Your task to perform on an android device: Clear the shopping cart on costco. Search for "amazon basics triple a" on costco, select the first entry, and add it to the cart. Image 0: 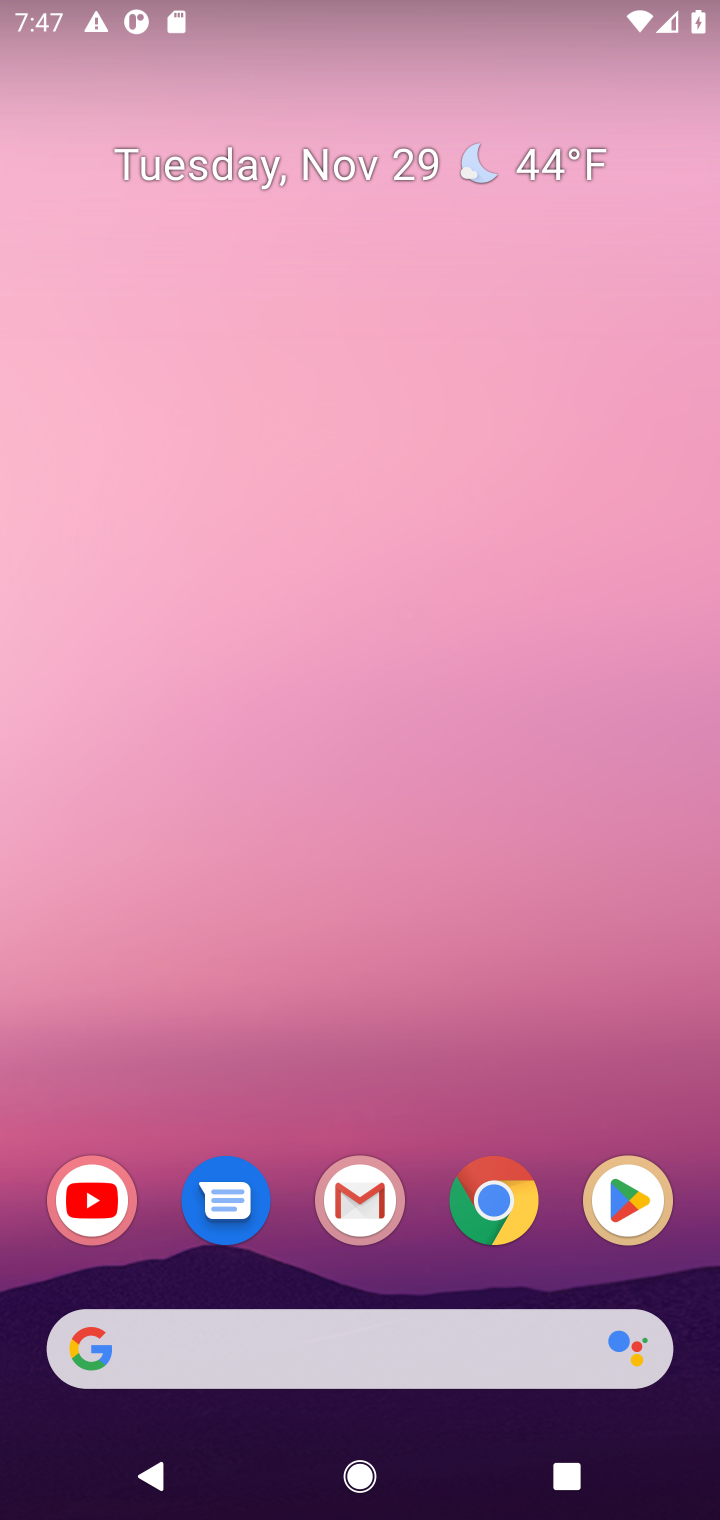
Step 0: click (240, 1362)
Your task to perform on an android device: Clear the shopping cart on costco. Search for "amazon basics triple a" on costco, select the first entry, and add it to the cart. Image 1: 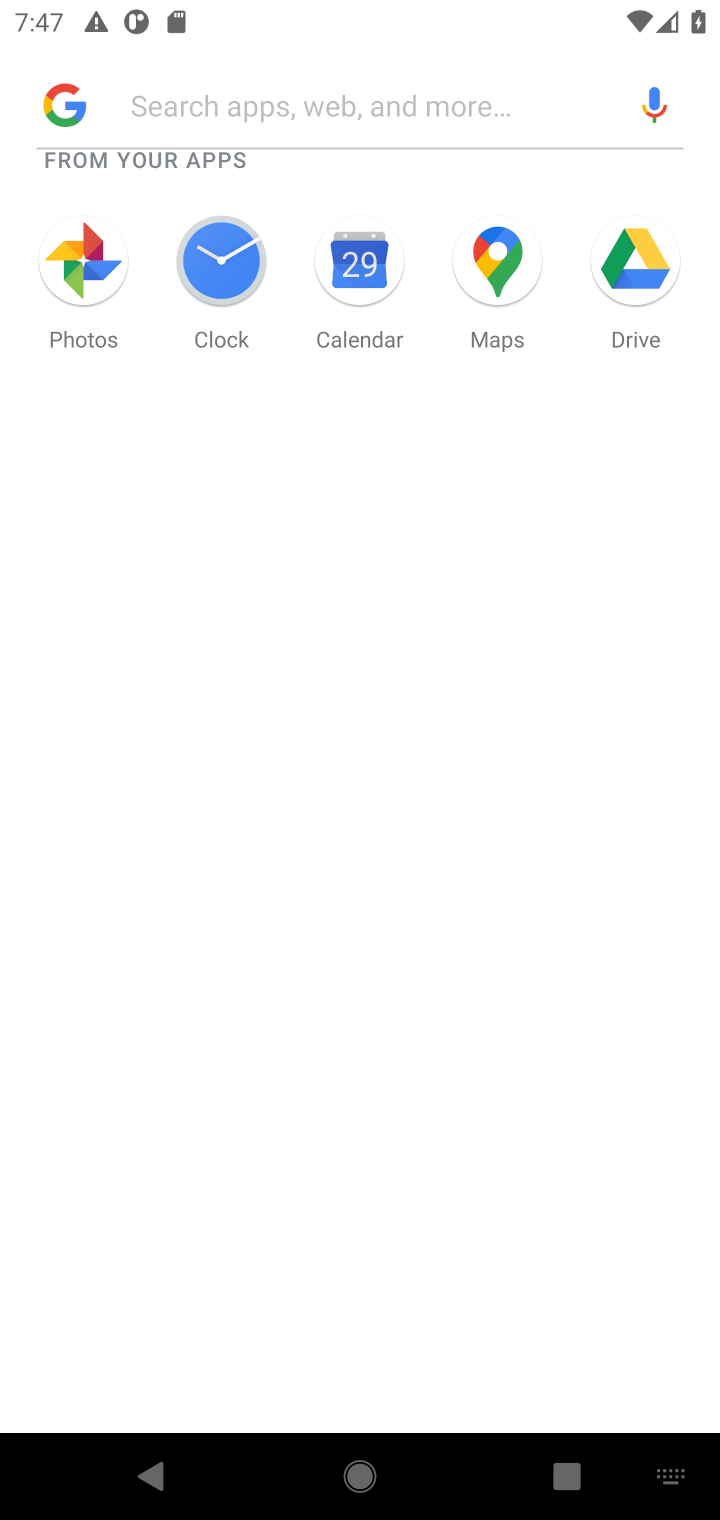
Step 1: press home button
Your task to perform on an android device: Clear the shopping cart on costco. Search for "amazon basics triple a" on costco, select the first entry, and add it to the cart. Image 2: 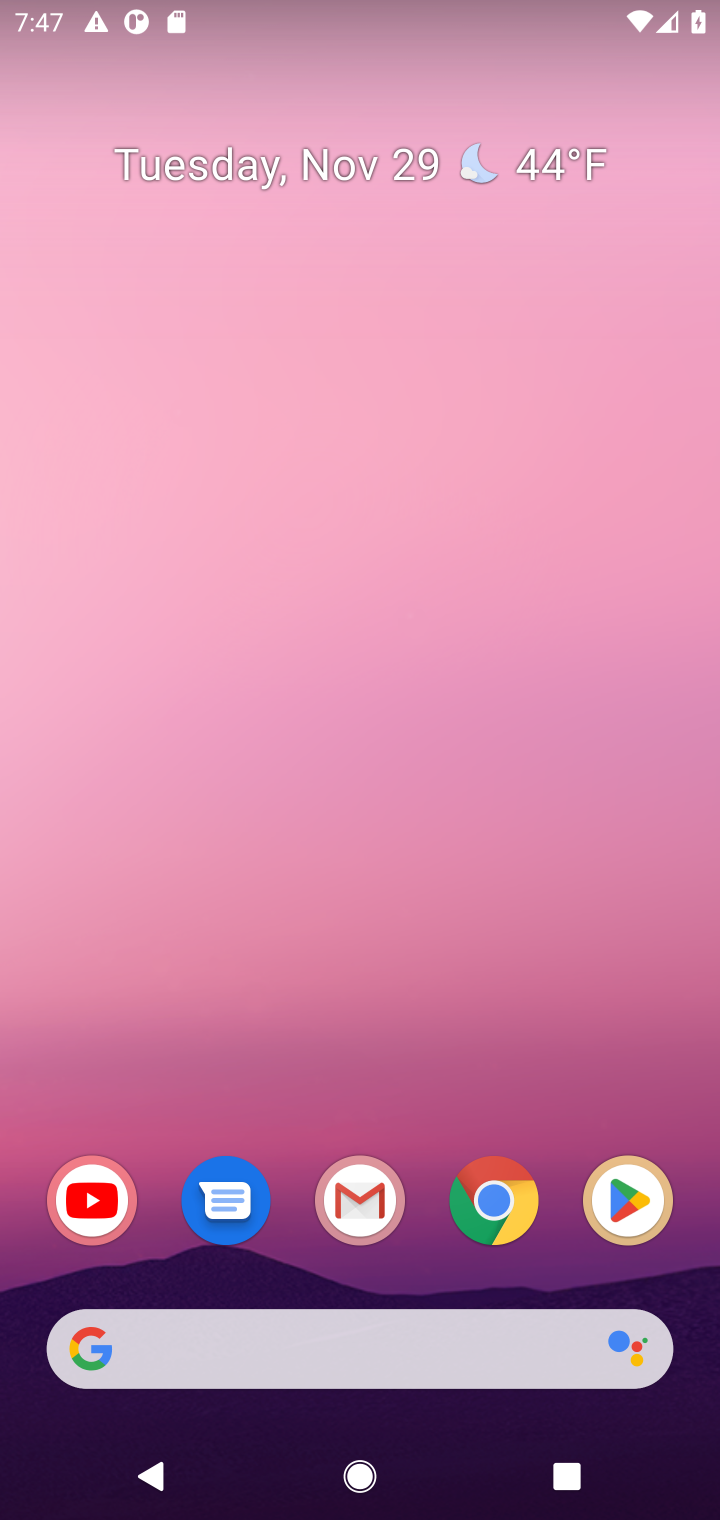
Step 2: click (505, 1178)
Your task to perform on an android device: Clear the shopping cart on costco. Search for "amazon basics triple a" on costco, select the first entry, and add it to the cart. Image 3: 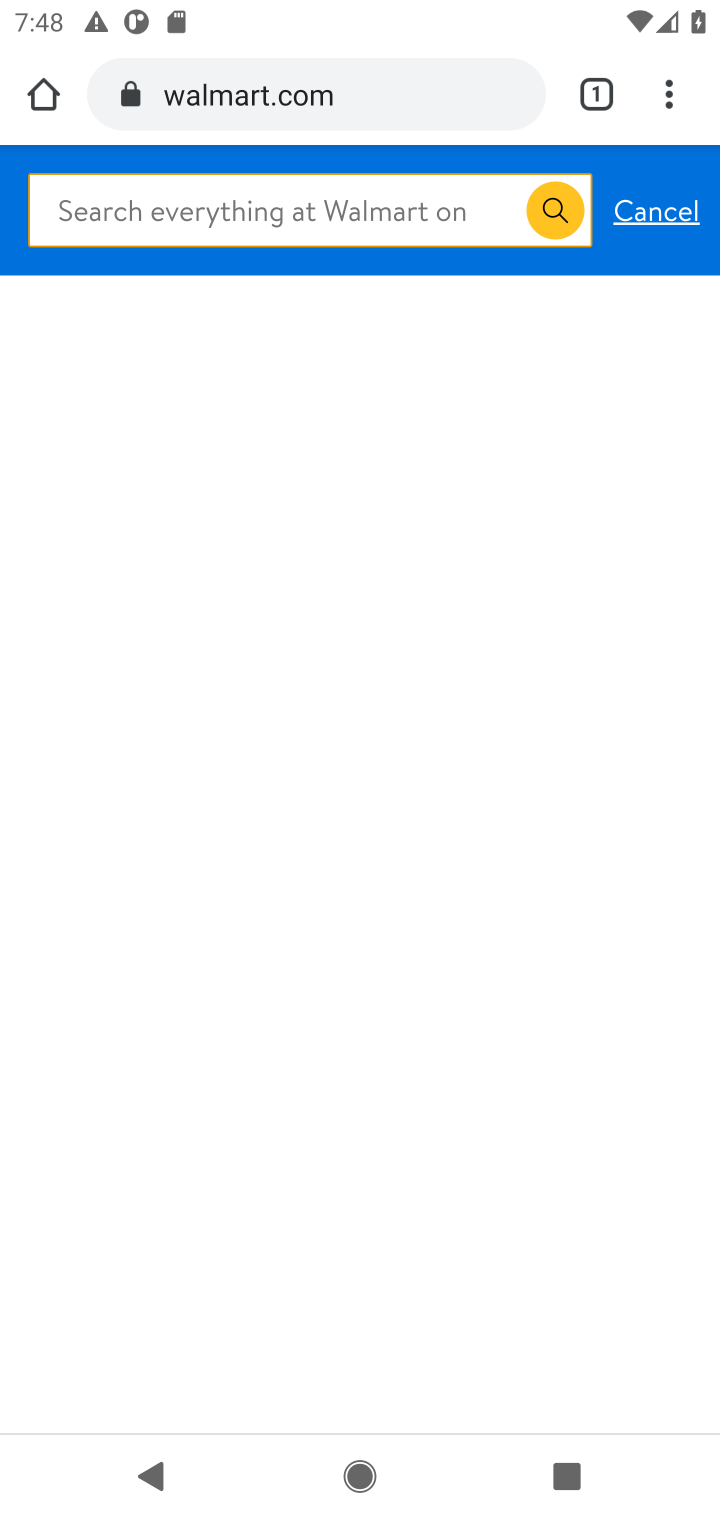
Step 3: click (395, 115)
Your task to perform on an android device: Clear the shopping cart on costco. Search for "amazon basics triple a" on costco, select the first entry, and add it to the cart. Image 4: 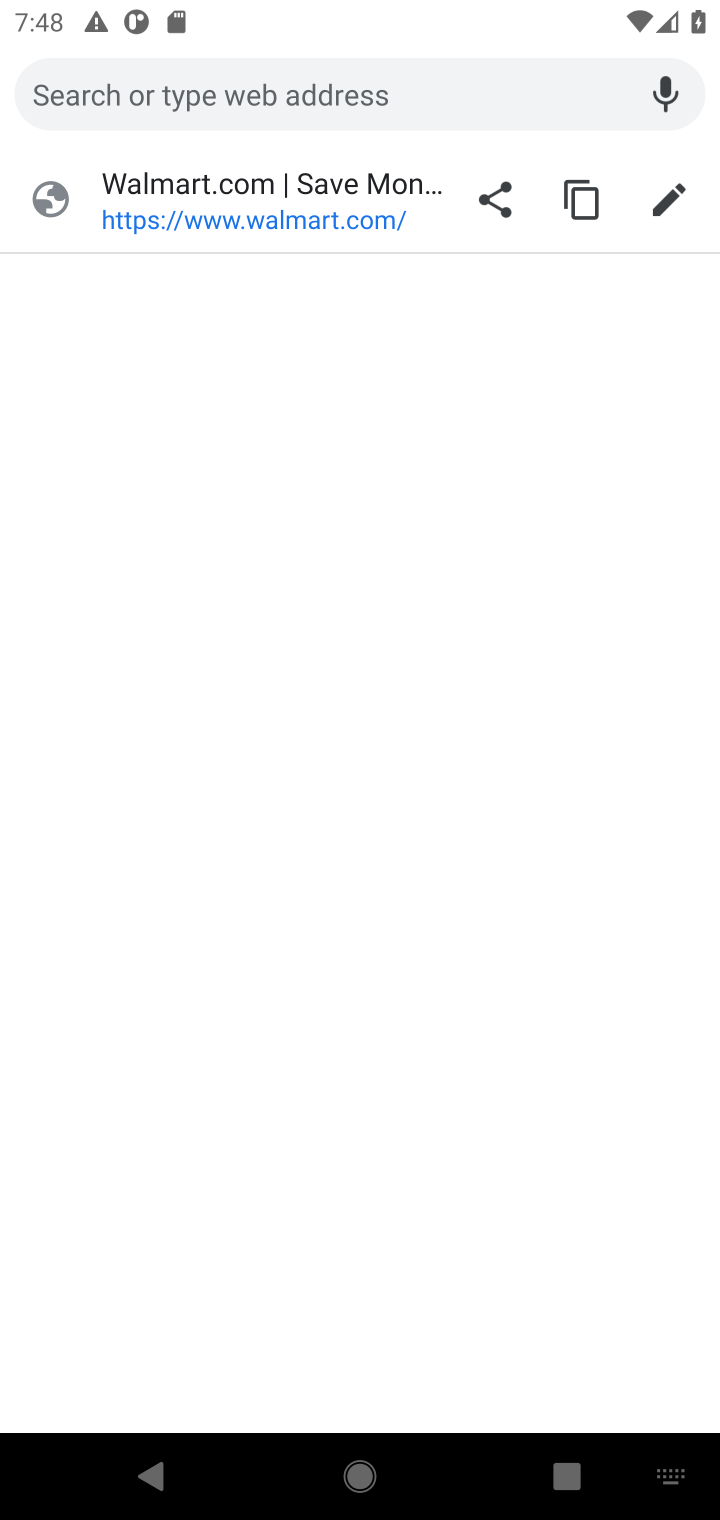
Step 4: type "costcoc.com"
Your task to perform on an android device: Clear the shopping cart on costco. Search for "amazon basics triple a" on costco, select the first entry, and add it to the cart. Image 5: 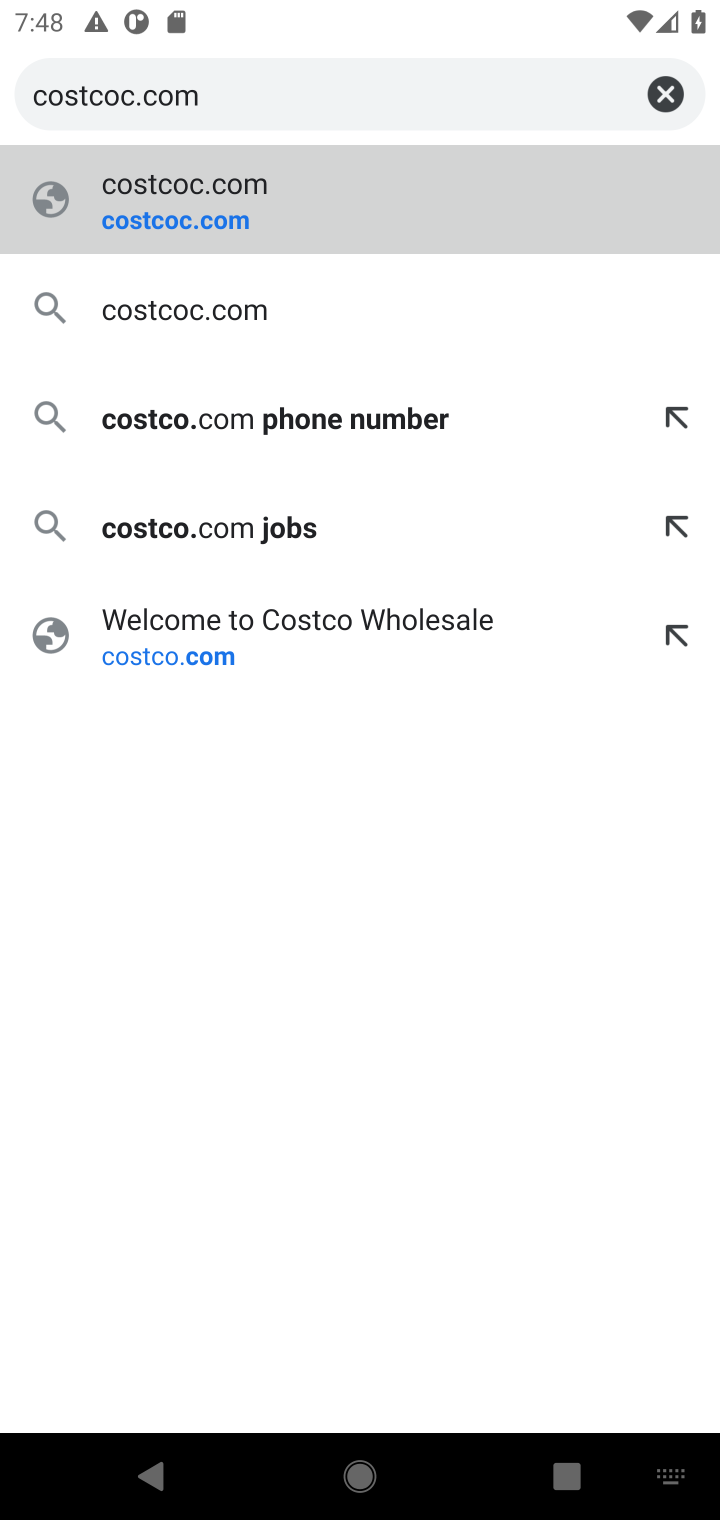
Step 5: click (390, 120)
Your task to perform on an android device: Clear the shopping cart on costco. Search for "amazon basics triple a" on costco, select the first entry, and add it to the cart. Image 6: 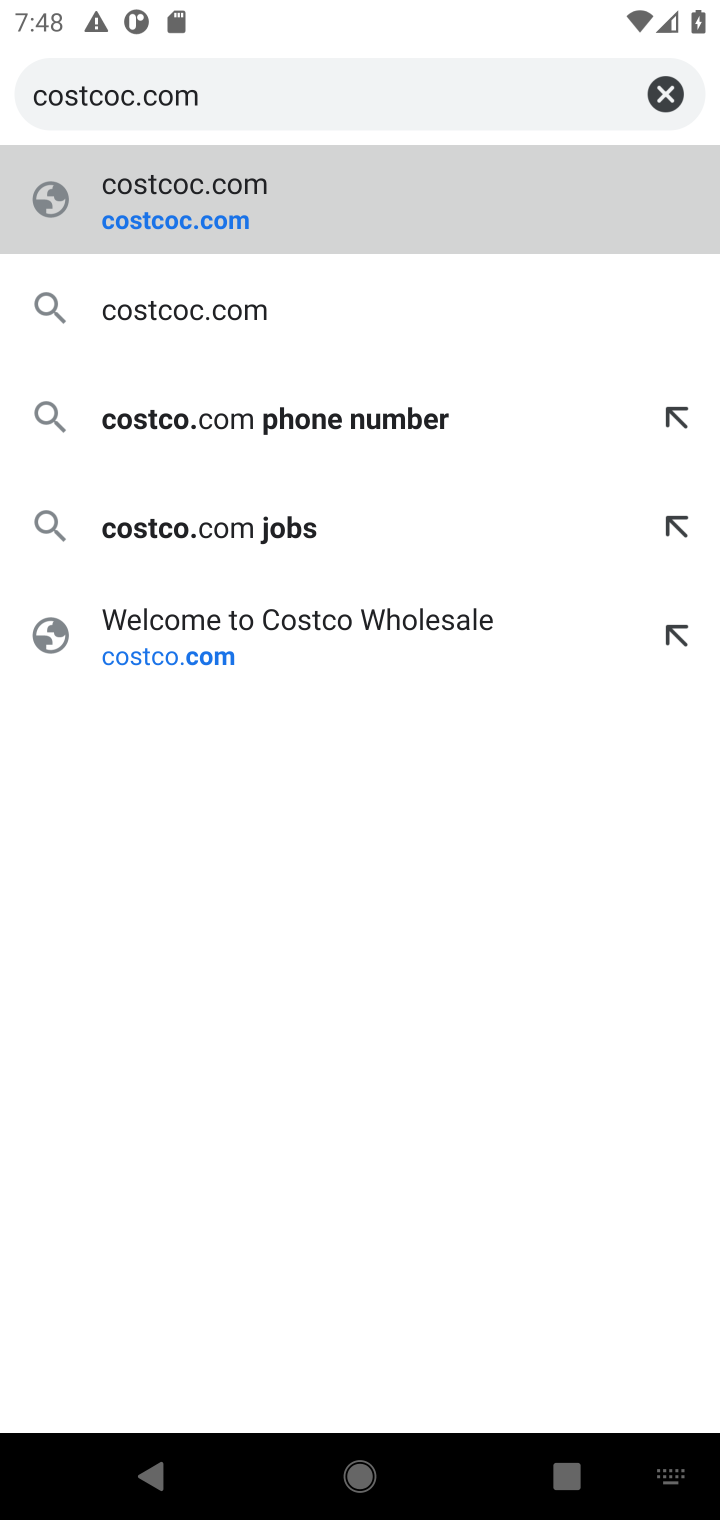
Step 6: click (289, 217)
Your task to perform on an android device: Clear the shopping cart on costco. Search for "amazon basics triple a" on costco, select the first entry, and add it to the cart. Image 7: 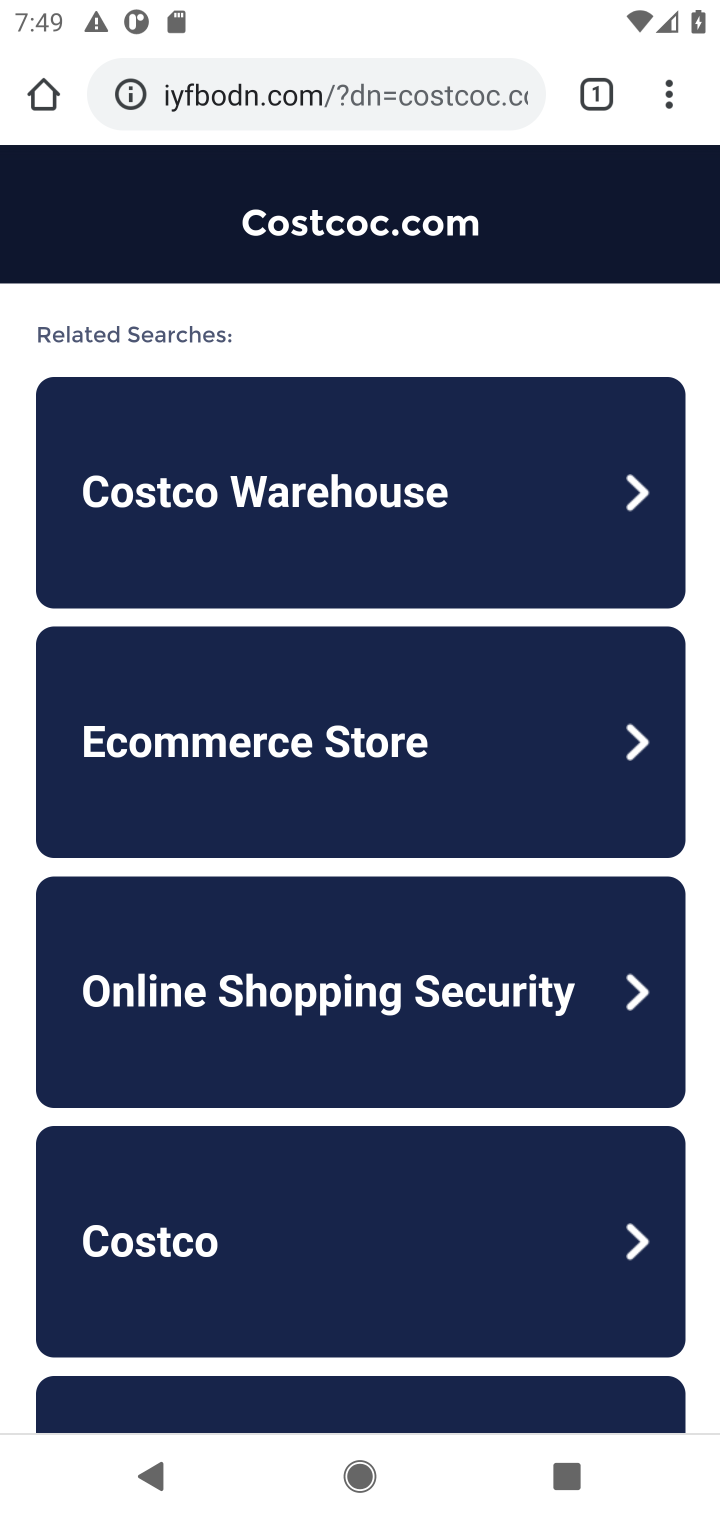
Step 7: click (265, 779)
Your task to perform on an android device: Clear the shopping cart on costco. Search for "amazon basics triple a" on costco, select the first entry, and add it to the cart. Image 8: 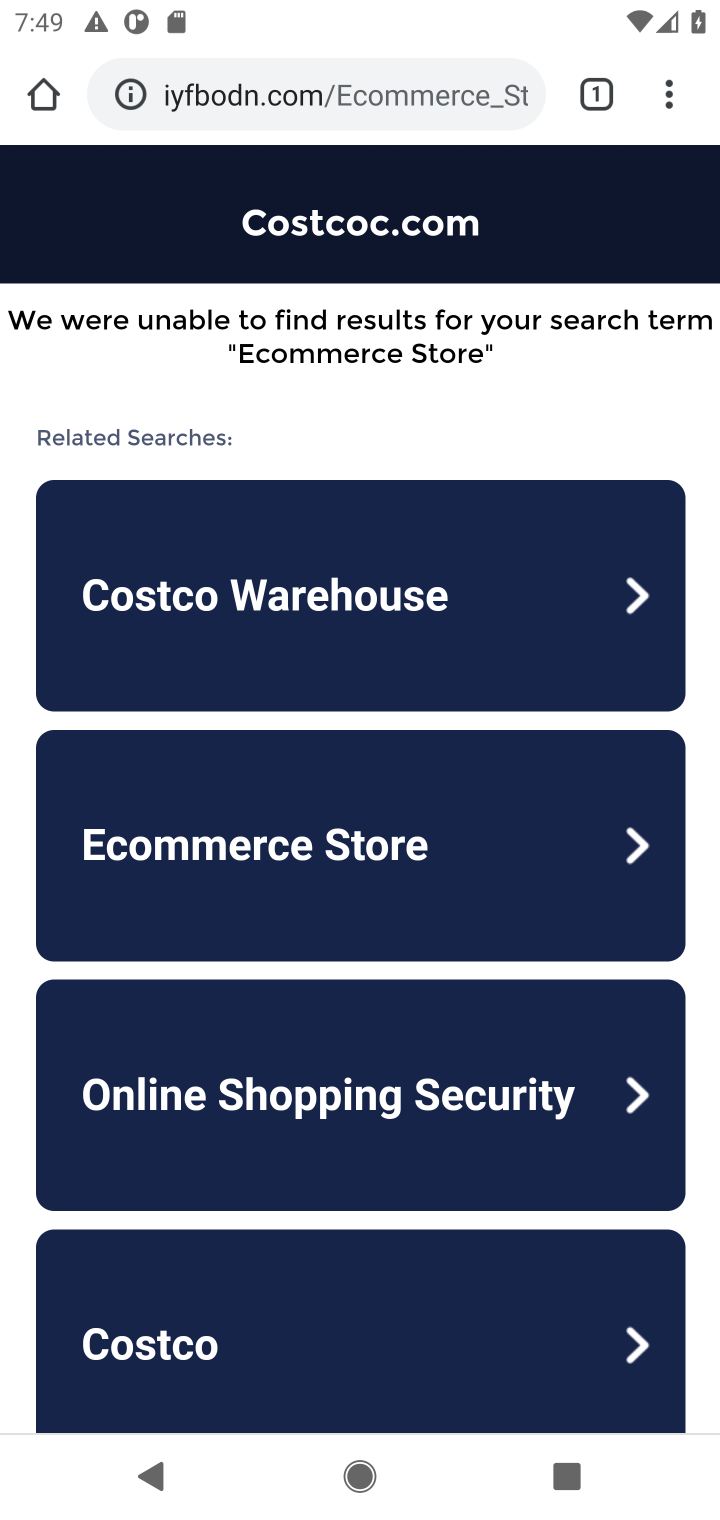
Step 8: click (266, 138)
Your task to perform on an android device: Clear the shopping cart on costco. Search for "amazon basics triple a" on costco, select the first entry, and add it to the cart. Image 9: 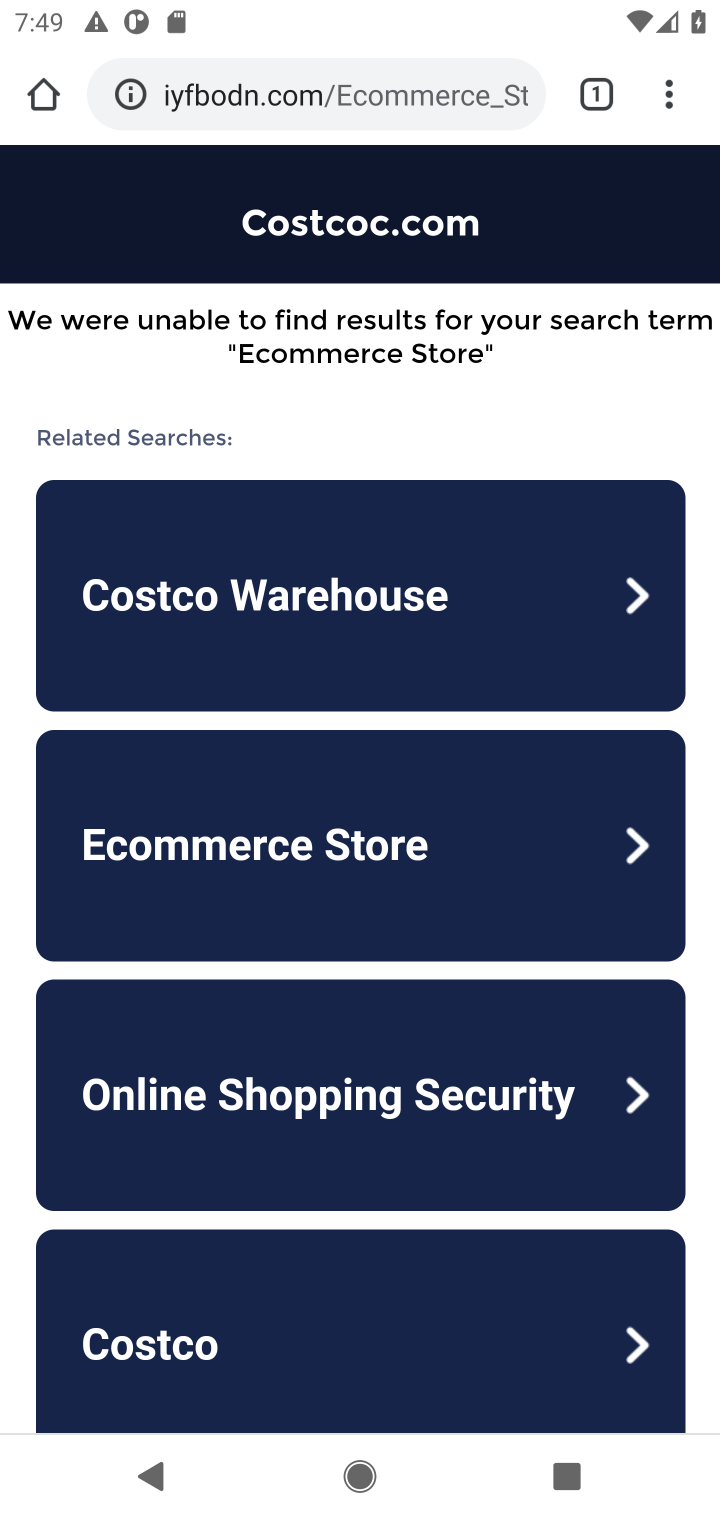
Step 9: click (260, 118)
Your task to perform on an android device: Clear the shopping cart on costco. Search for "amazon basics triple a" on costco, select the first entry, and add it to the cart. Image 10: 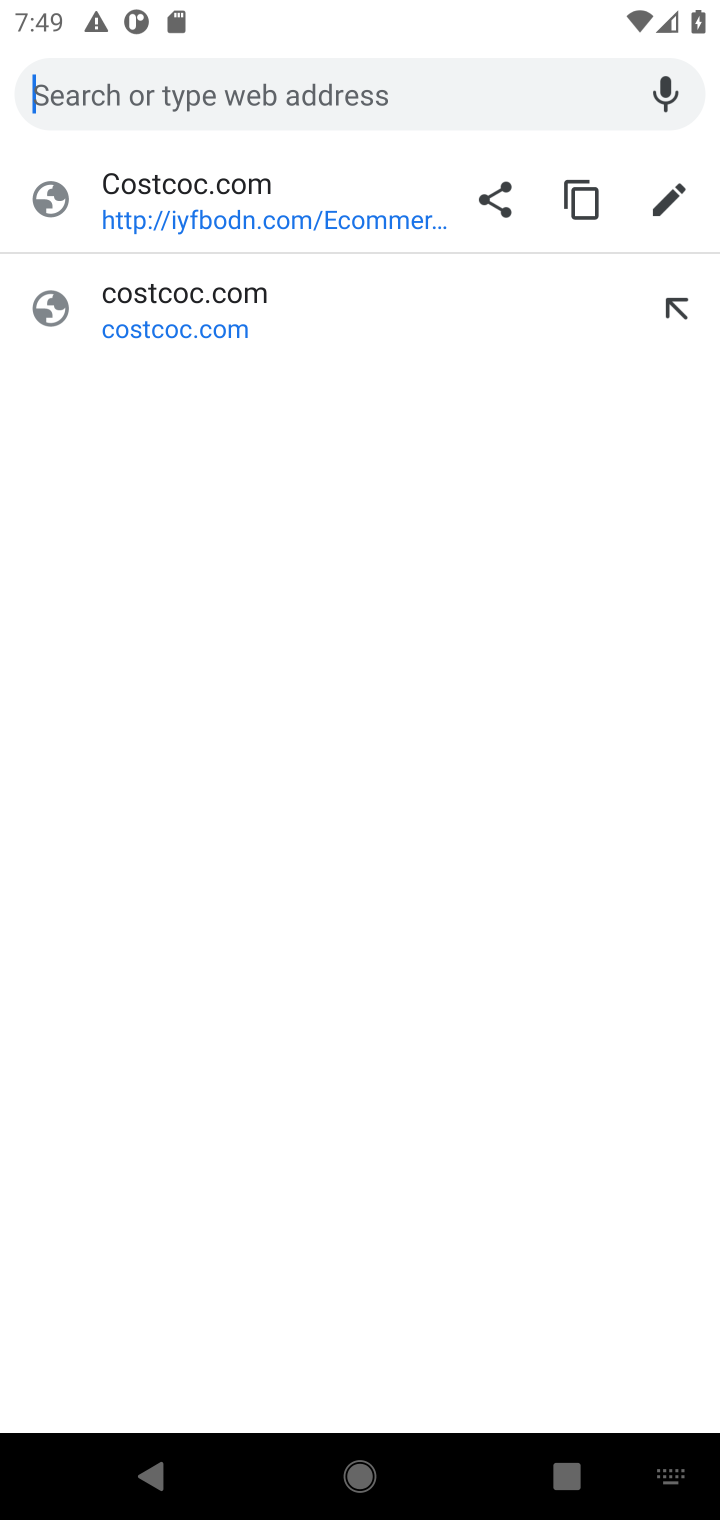
Step 10: type "costco.com"
Your task to perform on an android device: Clear the shopping cart on costco. Search for "amazon basics triple a" on costco, select the first entry, and add it to the cart. Image 11: 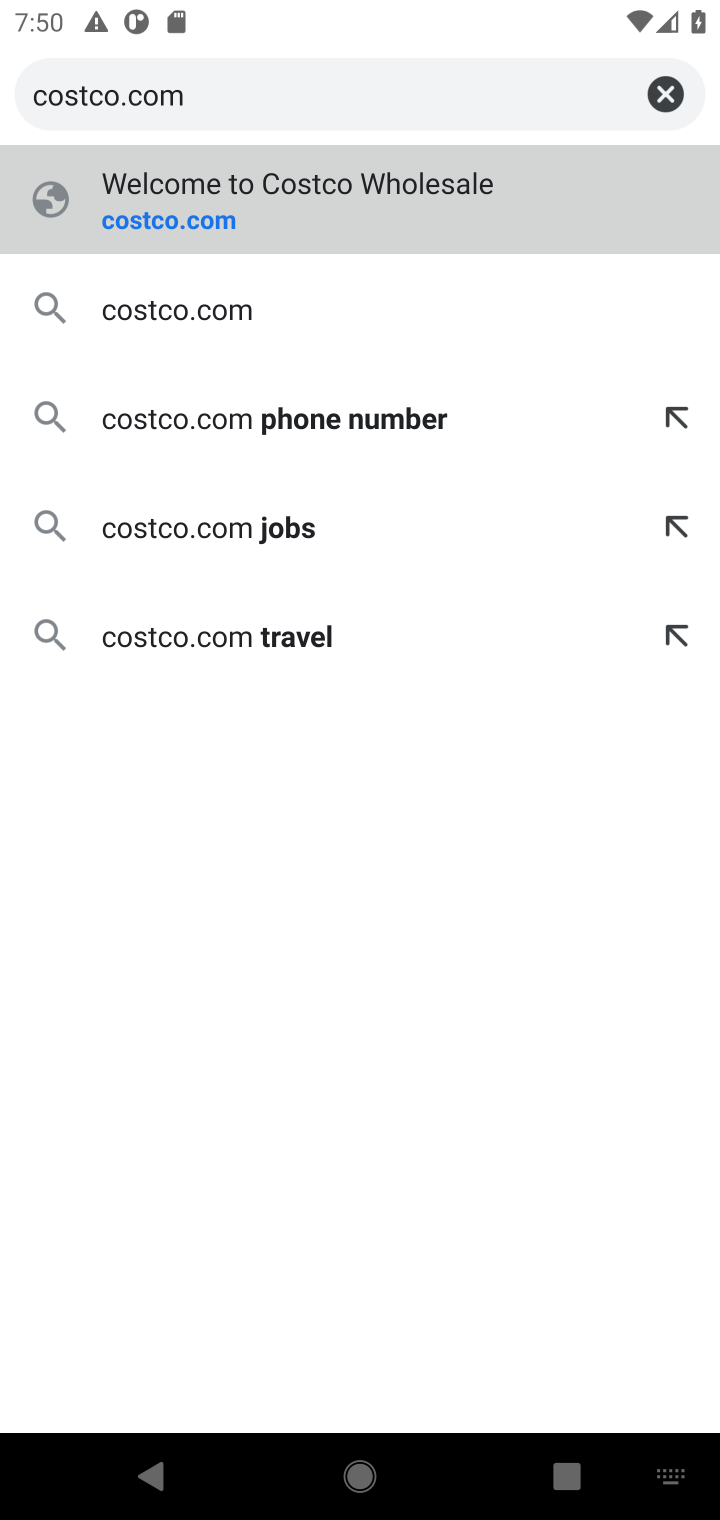
Step 11: click (192, 229)
Your task to perform on an android device: Clear the shopping cart on costco. Search for "amazon basics triple a" on costco, select the first entry, and add it to the cart. Image 12: 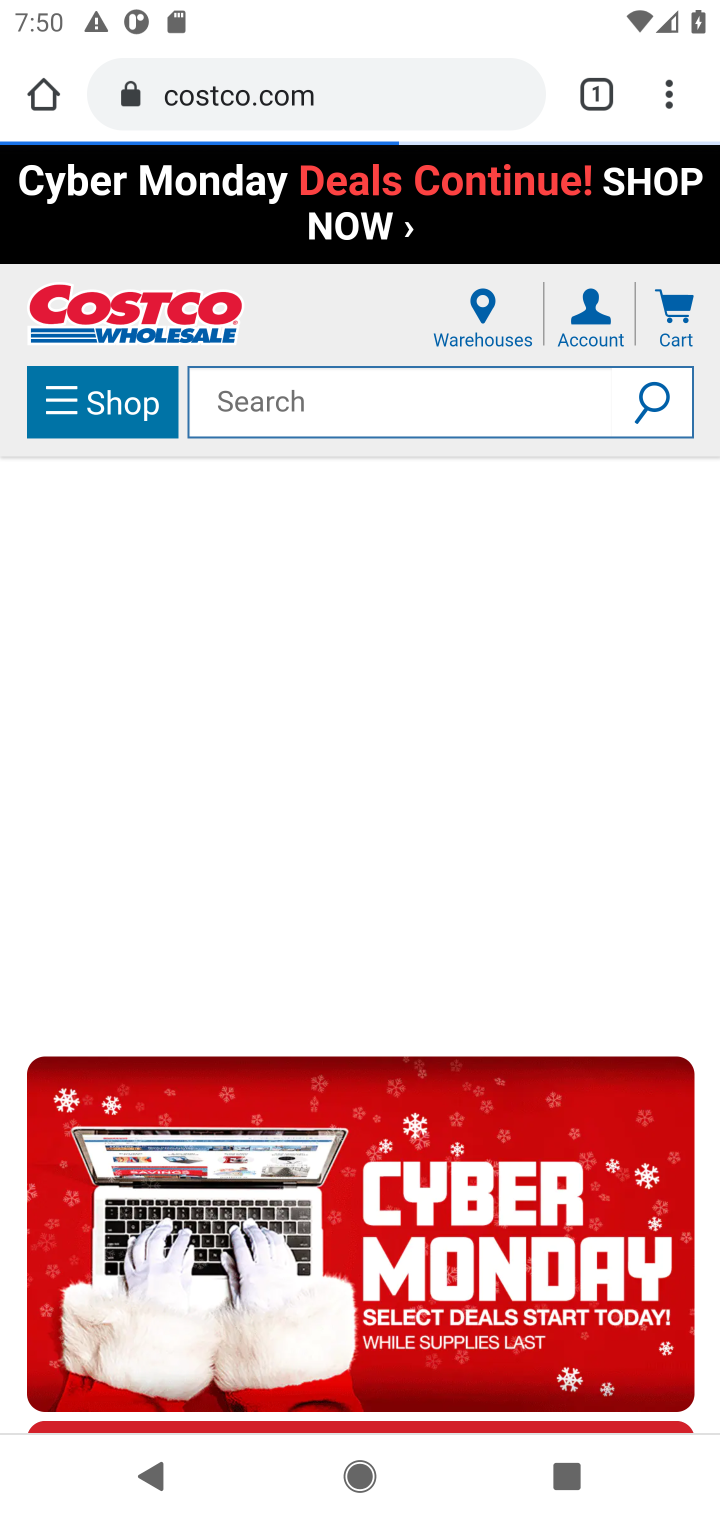
Step 12: click (350, 426)
Your task to perform on an android device: Clear the shopping cart on costco. Search for "amazon basics triple a" on costco, select the first entry, and add it to the cart. Image 13: 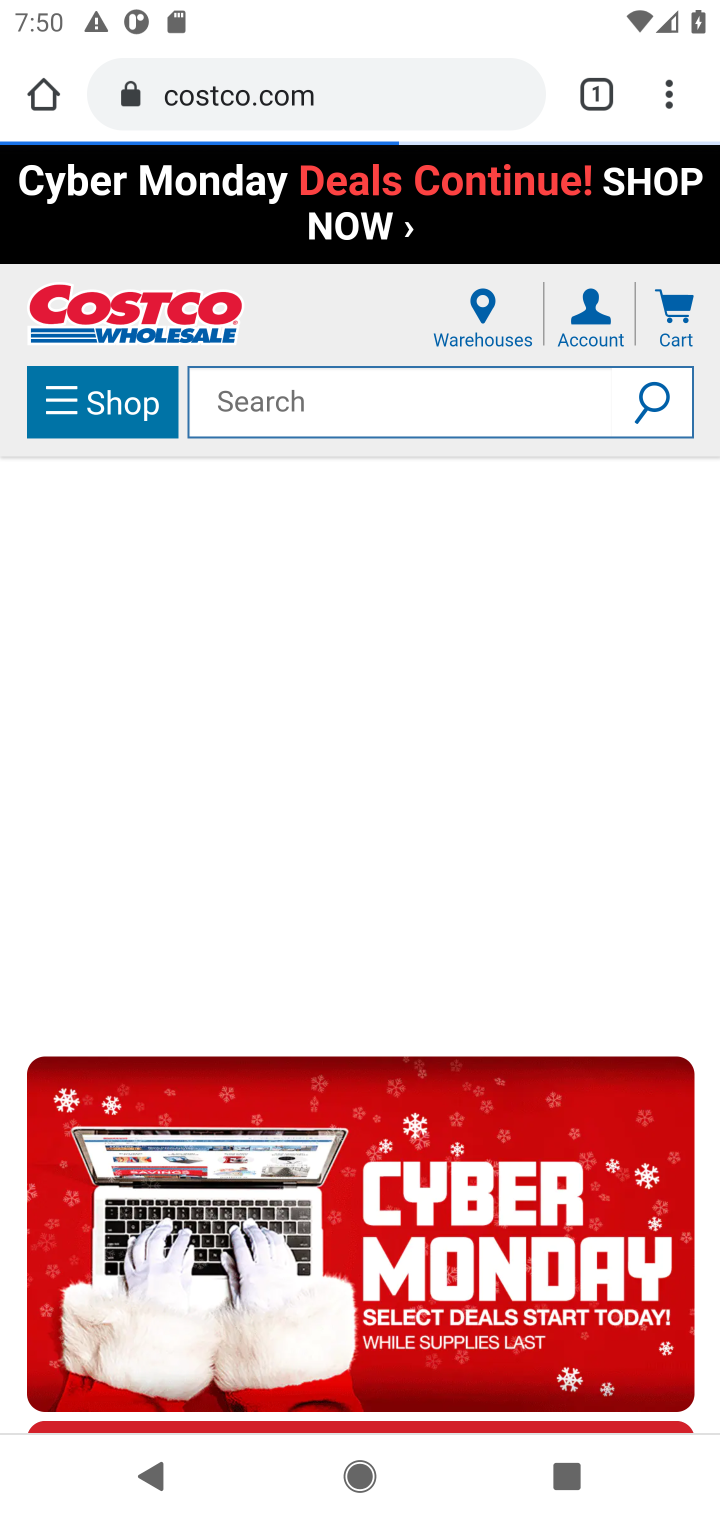
Step 13: type "amazon basics triple"
Your task to perform on an android device: Clear the shopping cart on costco. Search for "amazon basics triple a" on costco, select the first entry, and add it to the cart. Image 14: 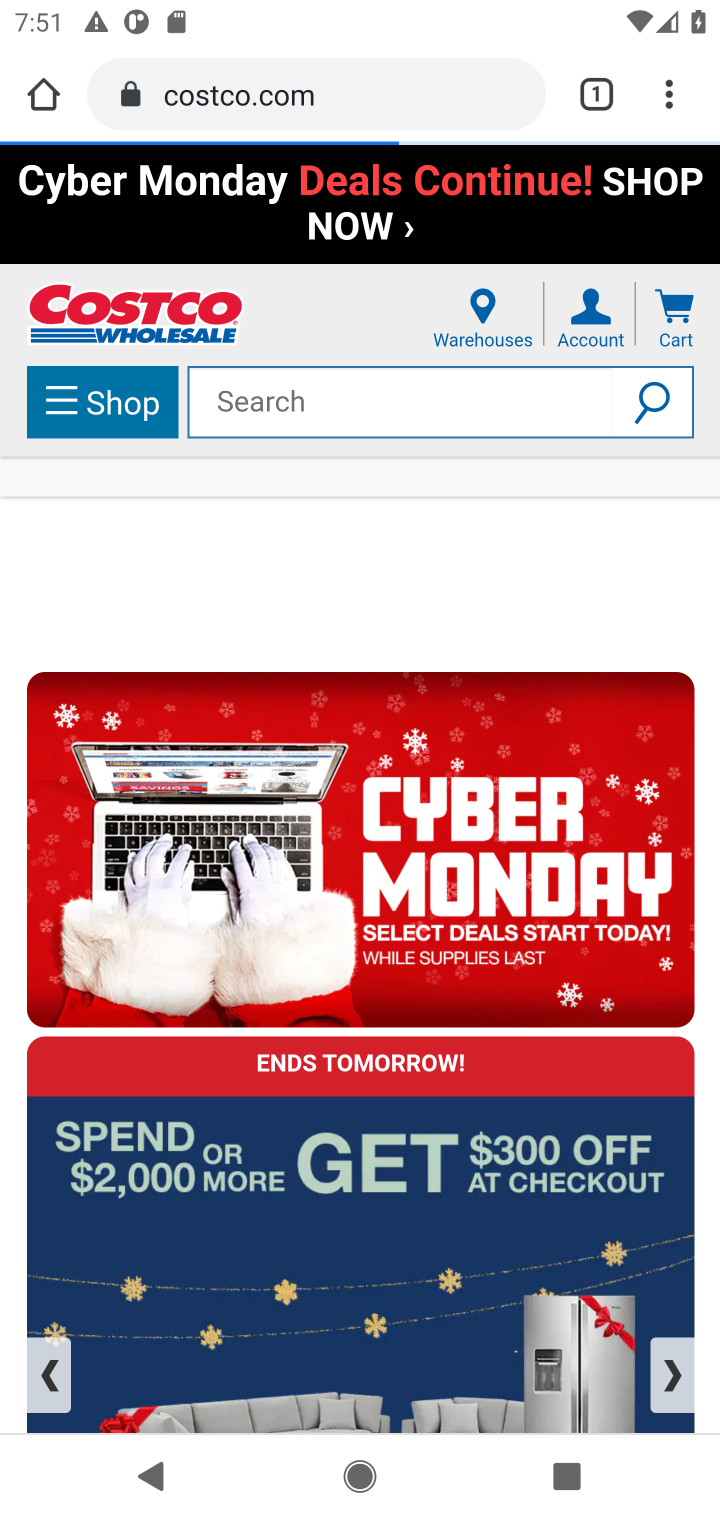
Step 14: task complete